Your task to perform on an android device: turn vacation reply on in the gmail app Image 0: 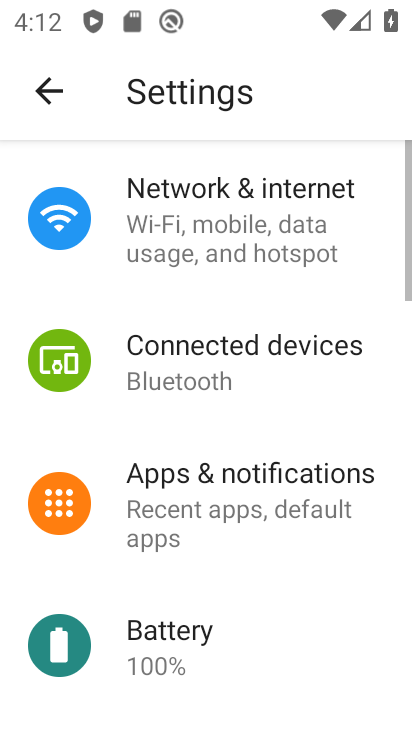
Step 0: press home button
Your task to perform on an android device: turn vacation reply on in the gmail app Image 1: 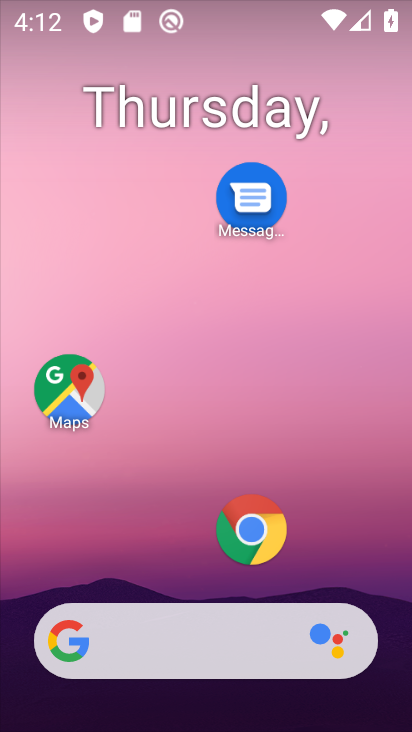
Step 1: drag from (187, 480) to (252, 77)
Your task to perform on an android device: turn vacation reply on in the gmail app Image 2: 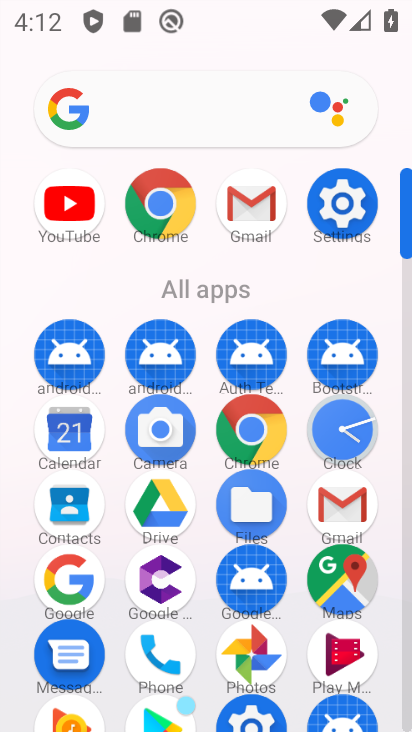
Step 2: click (248, 196)
Your task to perform on an android device: turn vacation reply on in the gmail app Image 3: 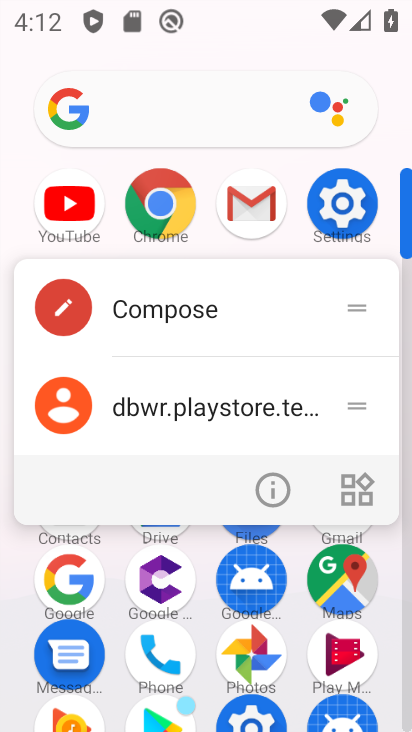
Step 3: click (252, 206)
Your task to perform on an android device: turn vacation reply on in the gmail app Image 4: 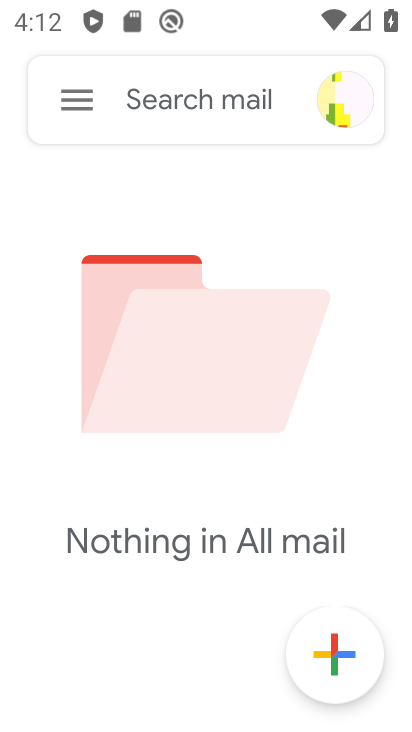
Step 4: click (76, 97)
Your task to perform on an android device: turn vacation reply on in the gmail app Image 5: 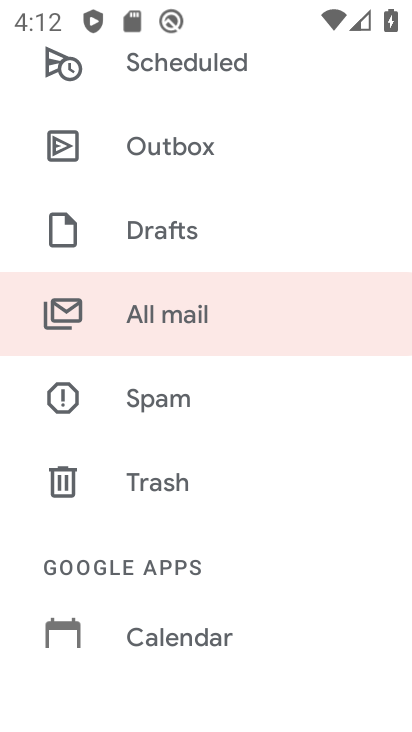
Step 5: drag from (167, 626) to (274, 25)
Your task to perform on an android device: turn vacation reply on in the gmail app Image 6: 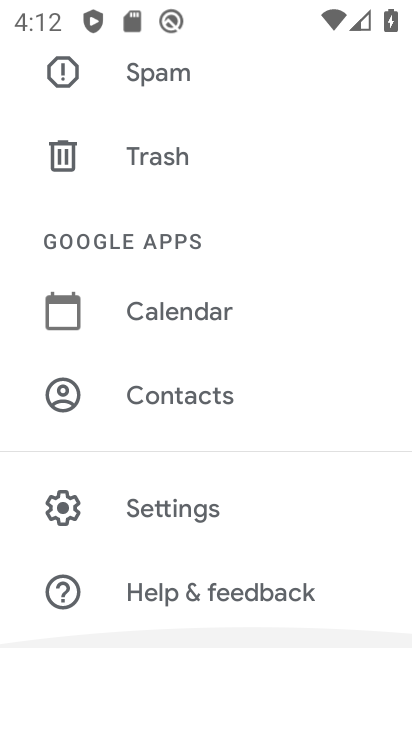
Step 6: click (169, 512)
Your task to perform on an android device: turn vacation reply on in the gmail app Image 7: 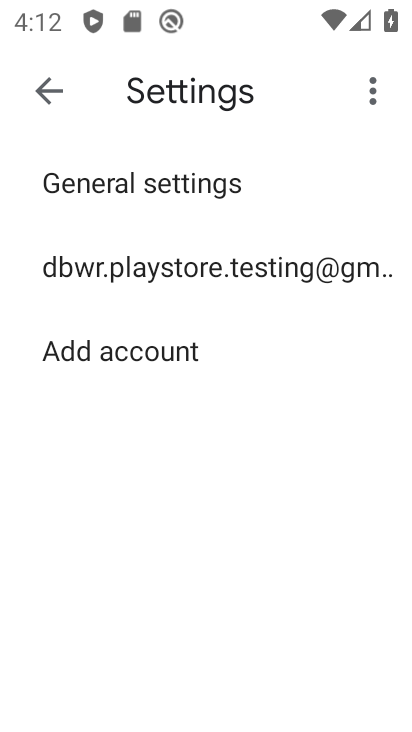
Step 7: click (152, 283)
Your task to perform on an android device: turn vacation reply on in the gmail app Image 8: 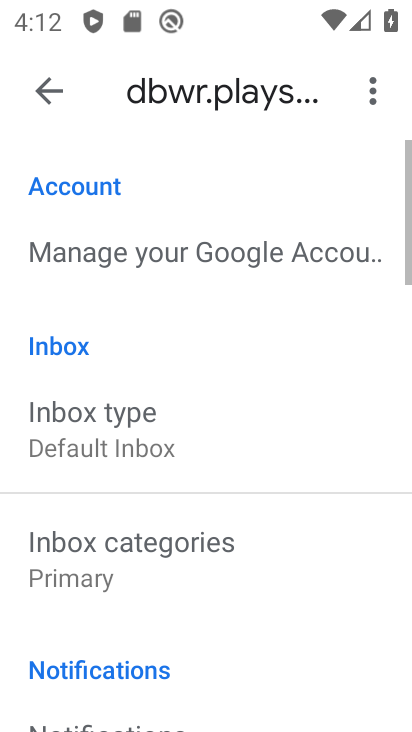
Step 8: drag from (191, 658) to (312, 65)
Your task to perform on an android device: turn vacation reply on in the gmail app Image 9: 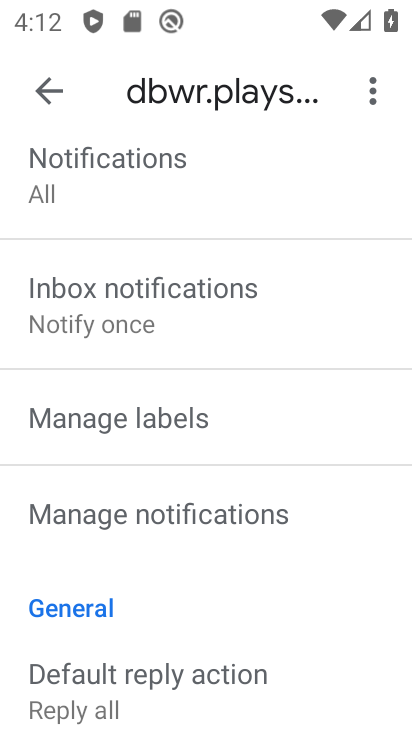
Step 9: drag from (167, 666) to (240, 22)
Your task to perform on an android device: turn vacation reply on in the gmail app Image 10: 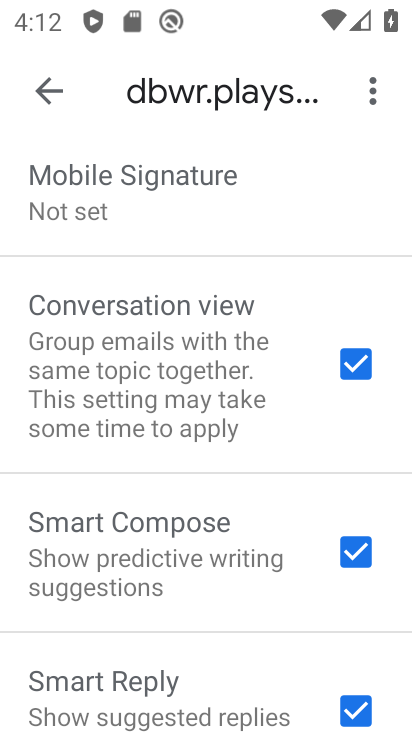
Step 10: drag from (167, 660) to (321, 110)
Your task to perform on an android device: turn vacation reply on in the gmail app Image 11: 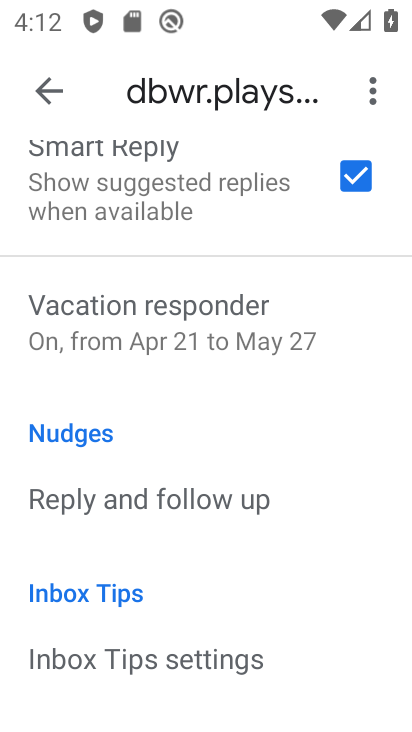
Step 11: click (136, 316)
Your task to perform on an android device: turn vacation reply on in the gmail app Image 12: 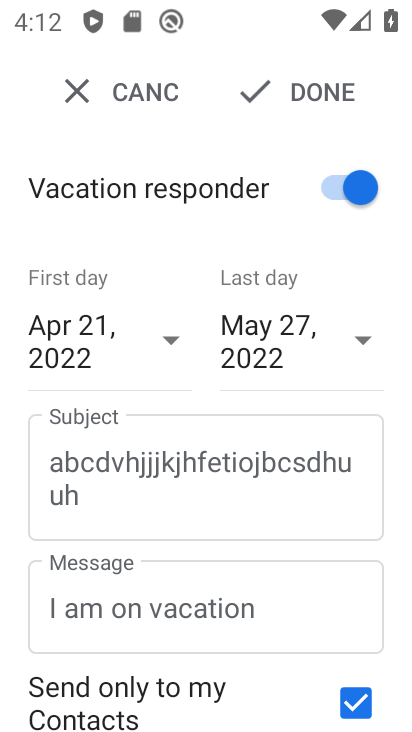
Step 12: task complete